Your task to perform on an android device: Is it going to rain tomorrow? Image 0: 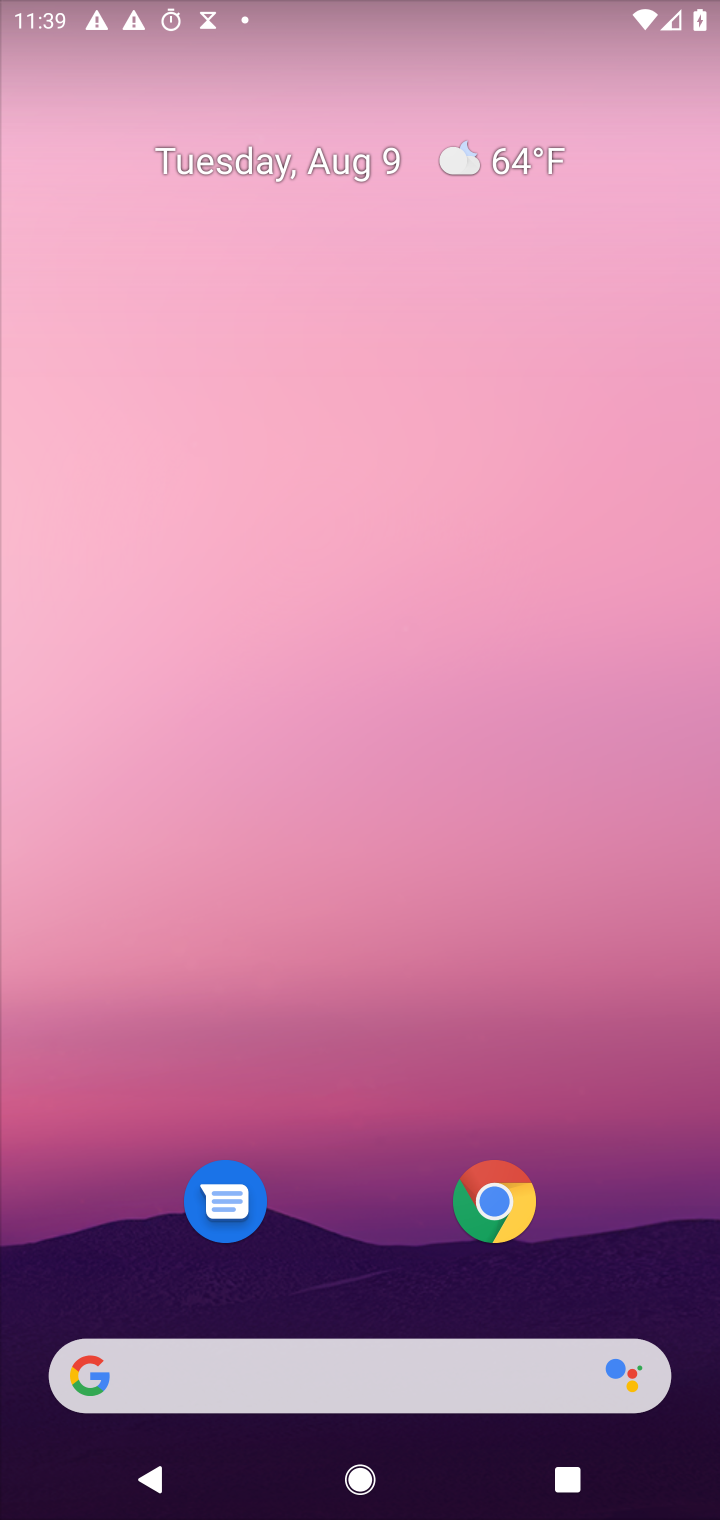
Step 0: press home button
Your task to perform on an android device: Is it going to rain tomorrow? Image 1: 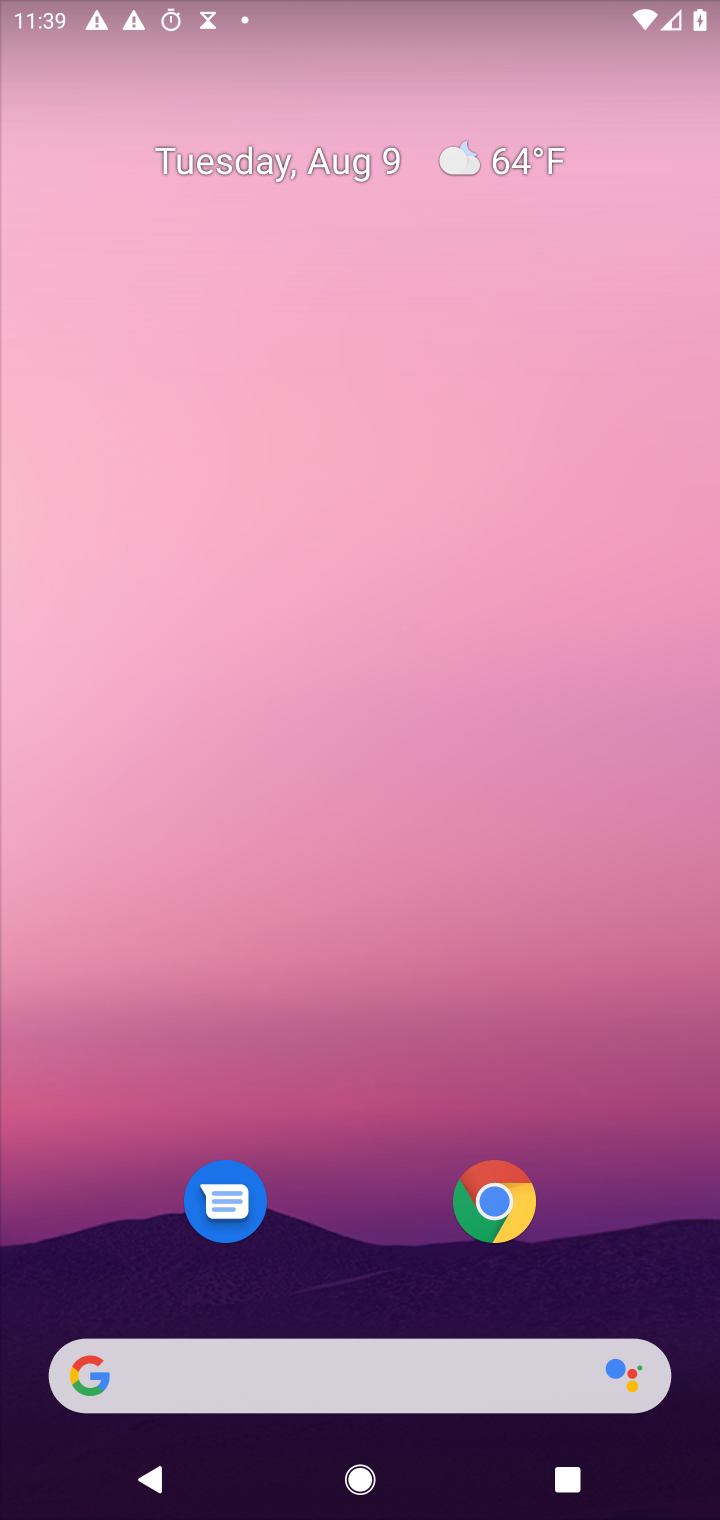
Step 1: drag from (644, 1260) to (699, 153)
Your task to perform on an android device: Is it going to rain tomorrow? Image 2: 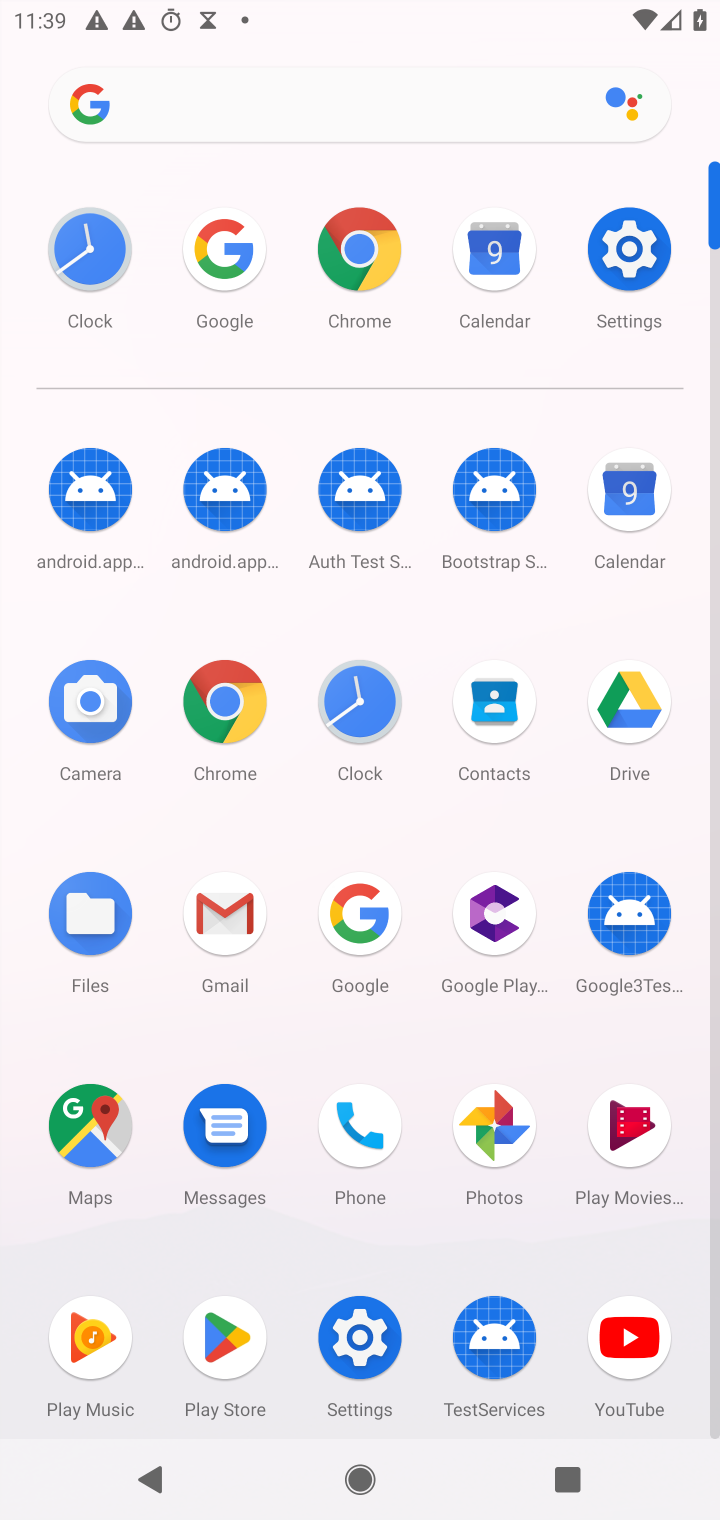
Step 2: click (352, 905)
Your task to perform on an android device: Is it going to rain tomorrow? Image 3: 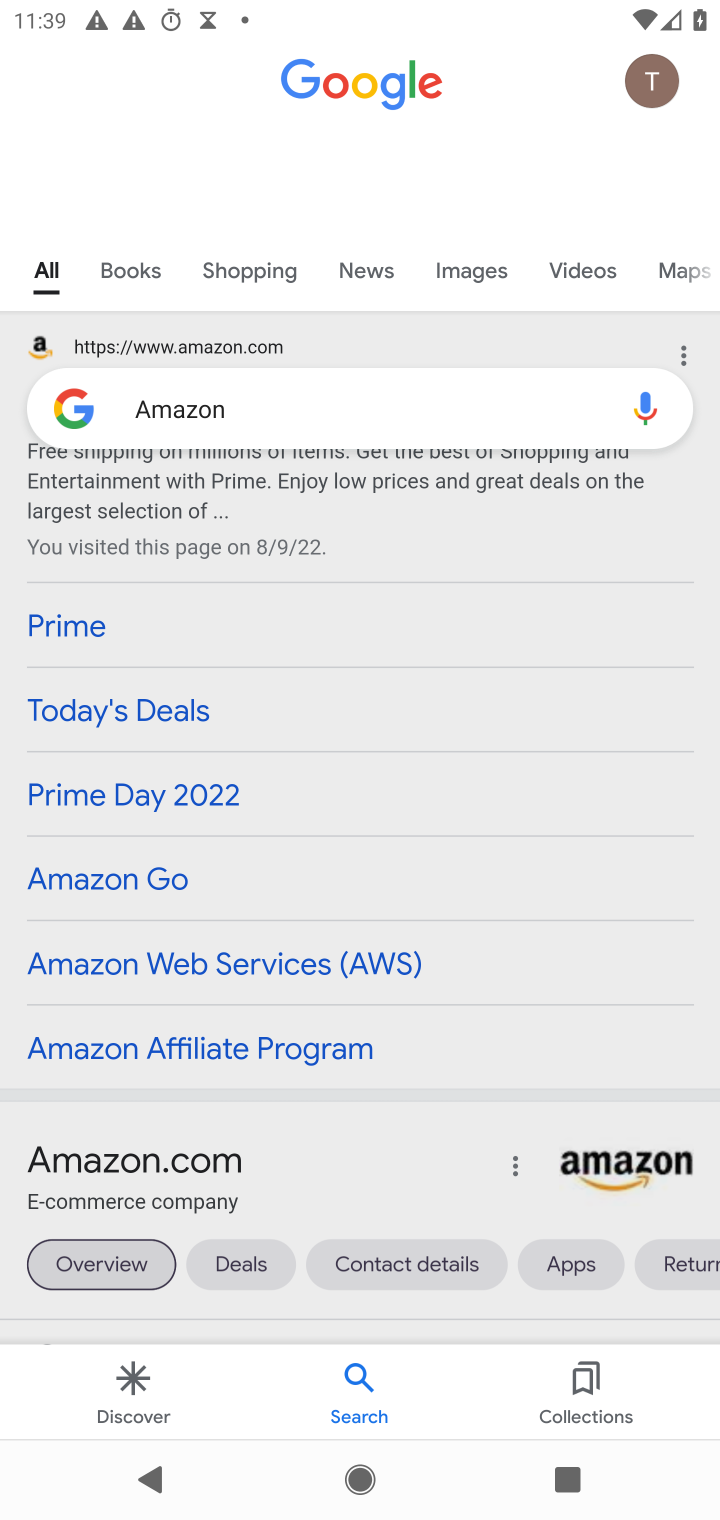
Step 3: click (222, 394)
Your task to perform on an android device: Is it going to rain tomorrow? Image 4: 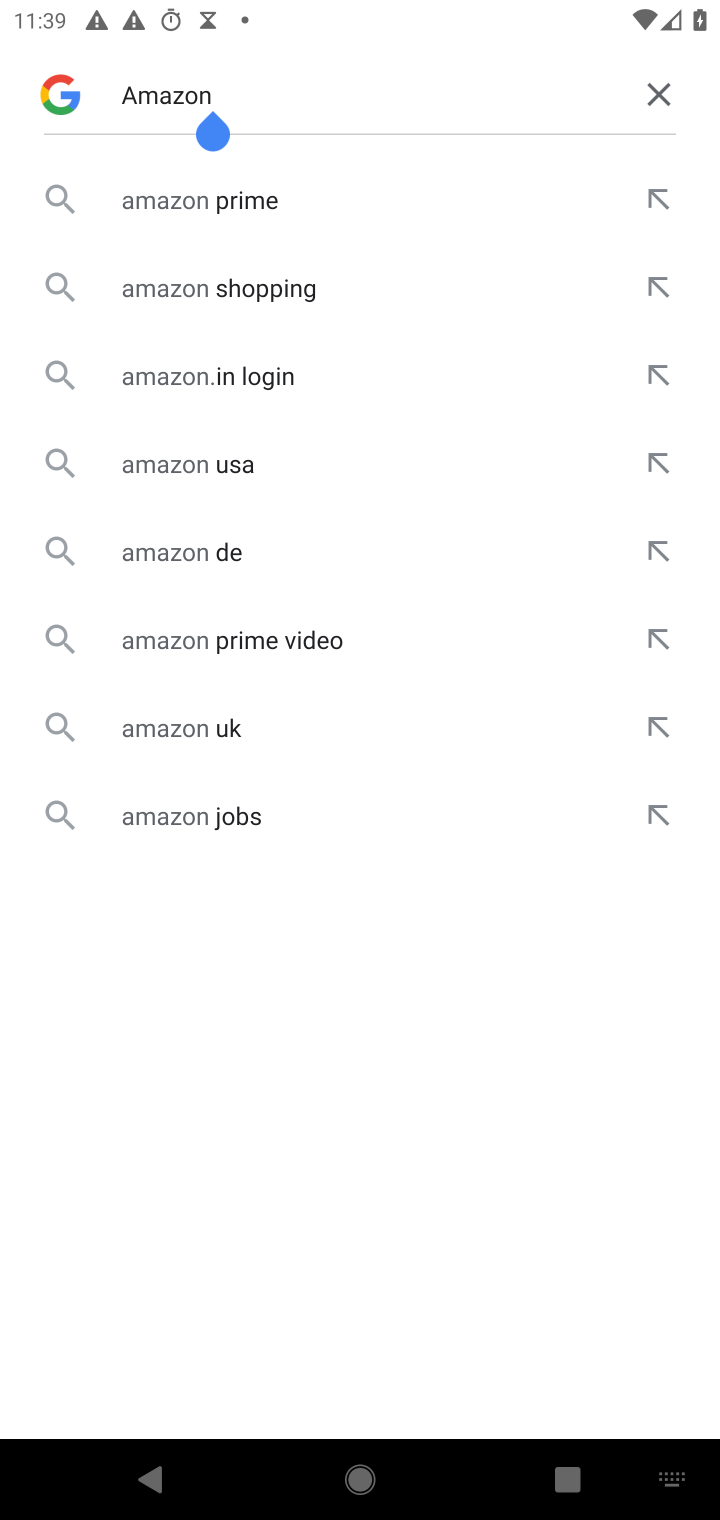
Step 4: click (652, 82)
Your task to perform on an android device: Is it going to rain tomorrow? Image 5: 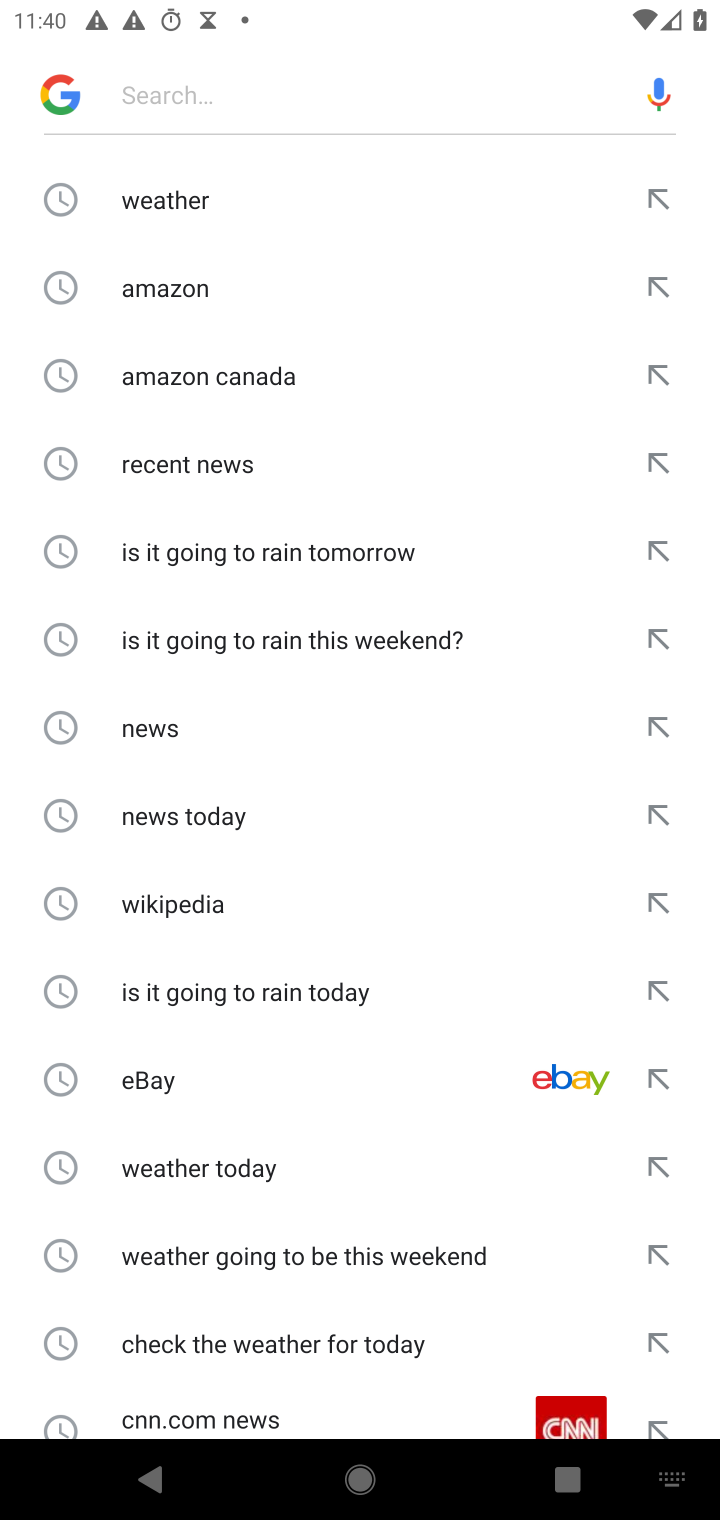
Step 5: type "Is it going to rain tomorrow?"
Your task to perform on an android device: Is it going to rain tomorrow? Image 6: 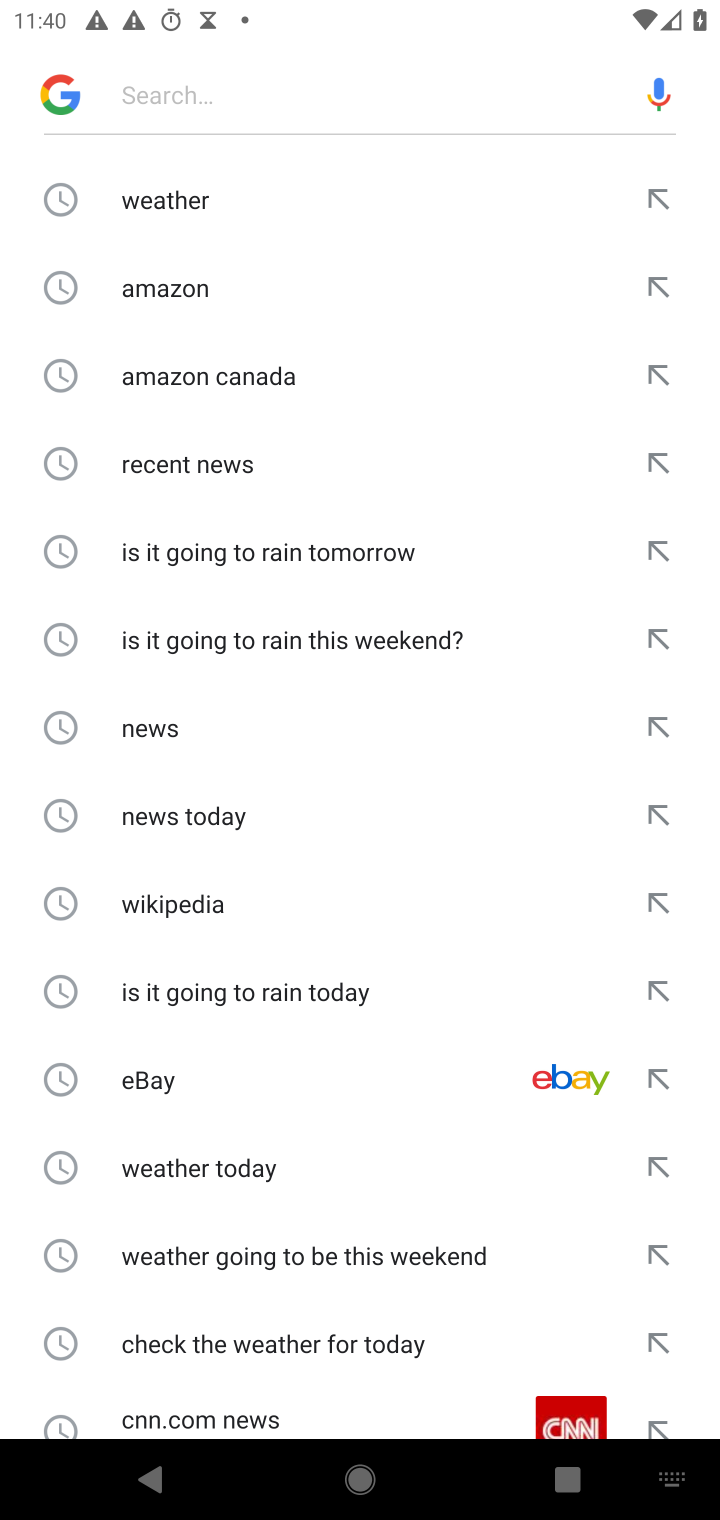
Step 6: click (157, 98)
Your task to perform on an android device: Is it going to rain tomorrow? Image 7: 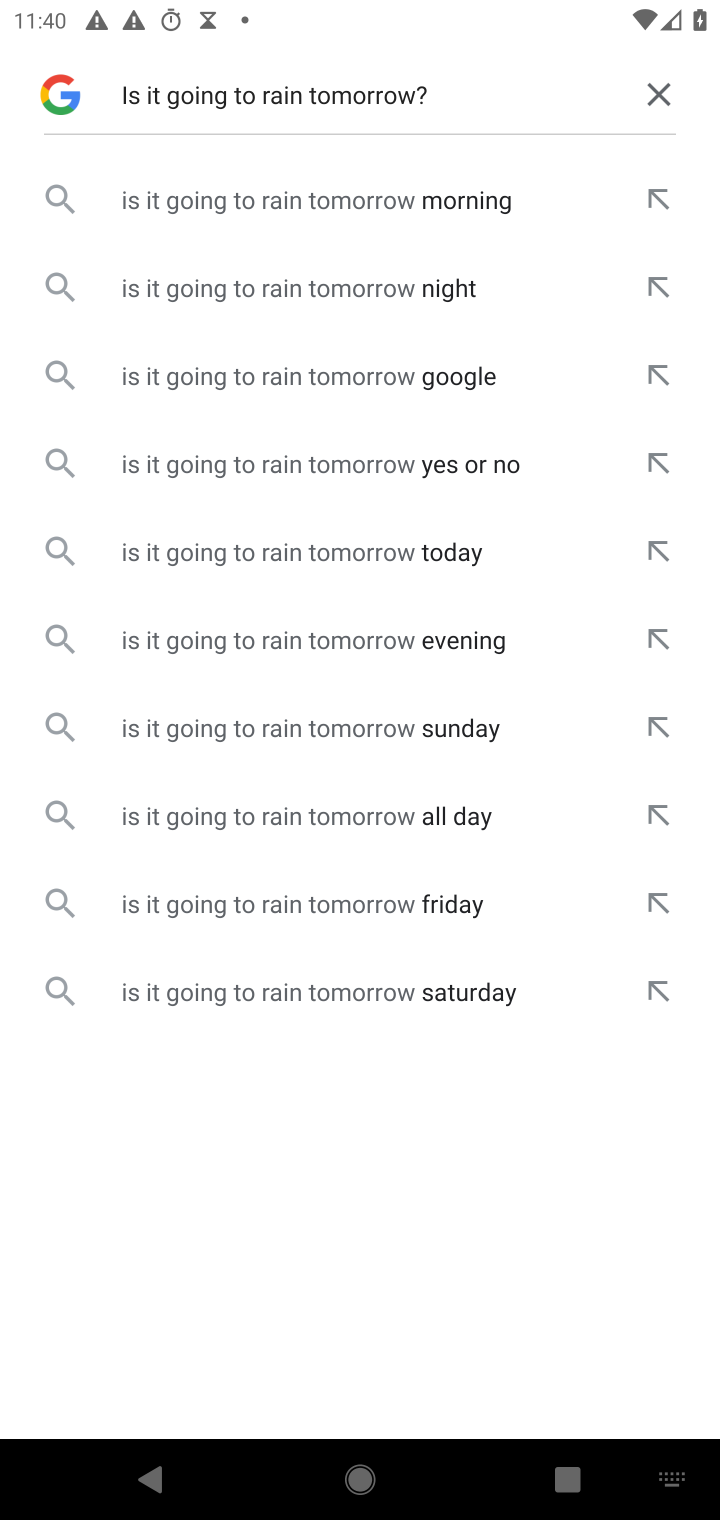
Step 7: press enter
Your task to perform on an android device: Is it going to rain tomorrow? Image 8: 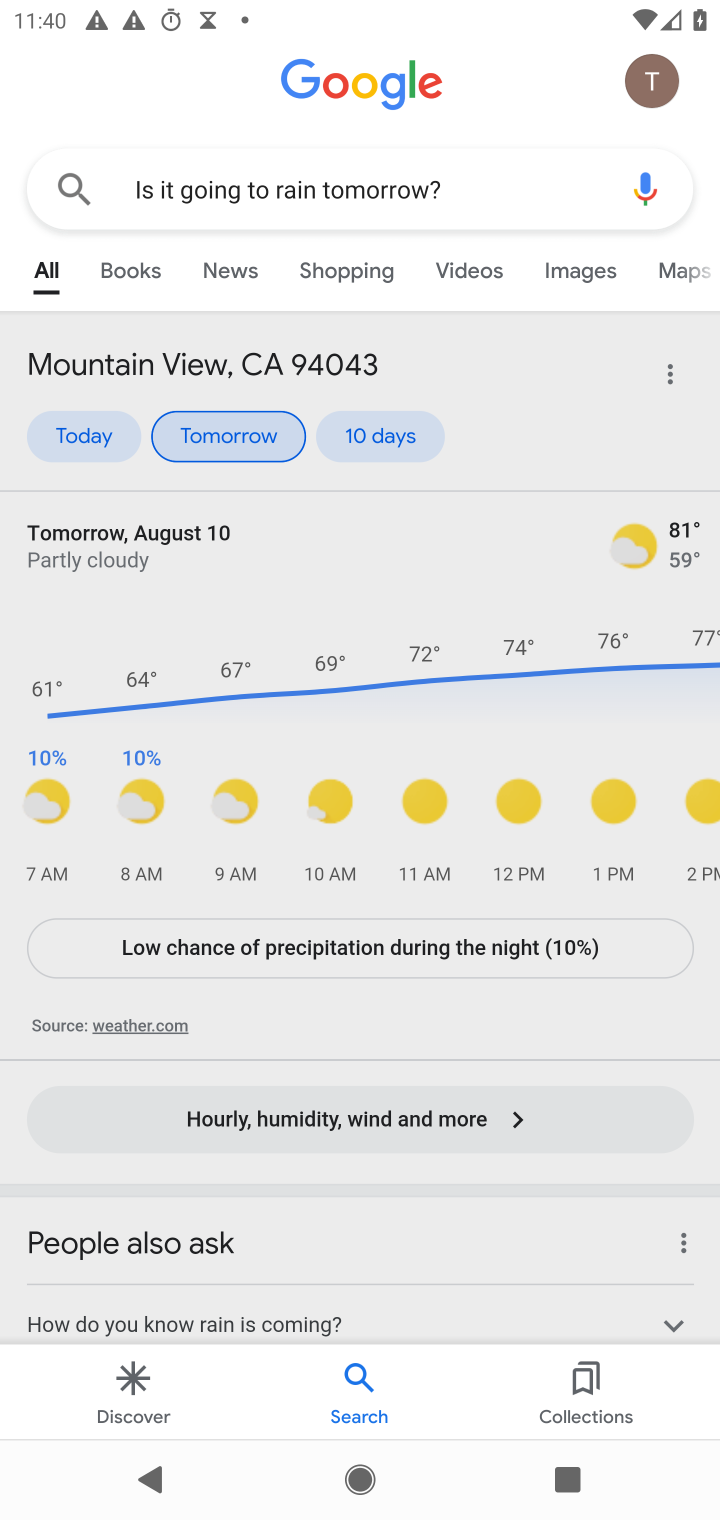
Step 8: task complete